Your task to perform on an android device: Is it going to rain tomorrow? Image 0: 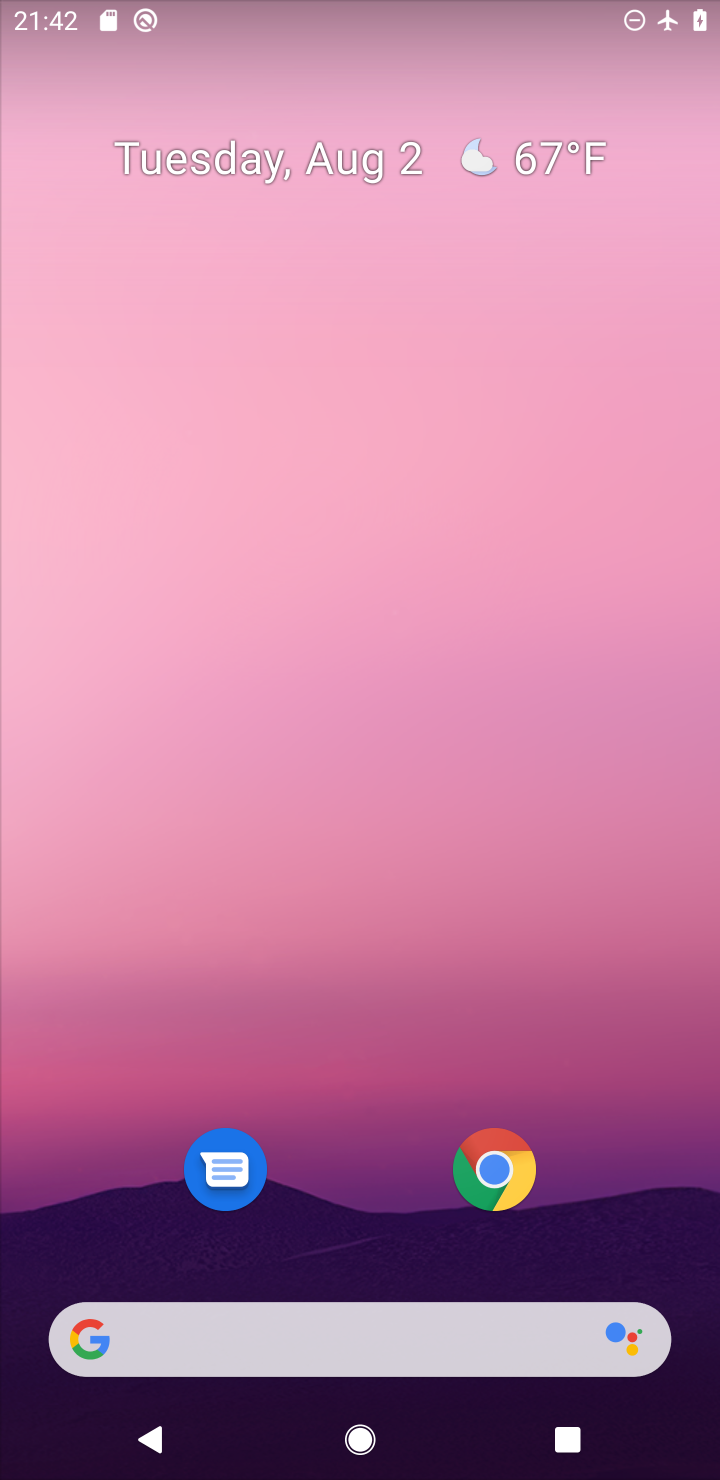
Step 0: drag from (372, 1237) to (340, 238)
Your task to perform on an android device: Is it going to rain tomorrow? Image 1: 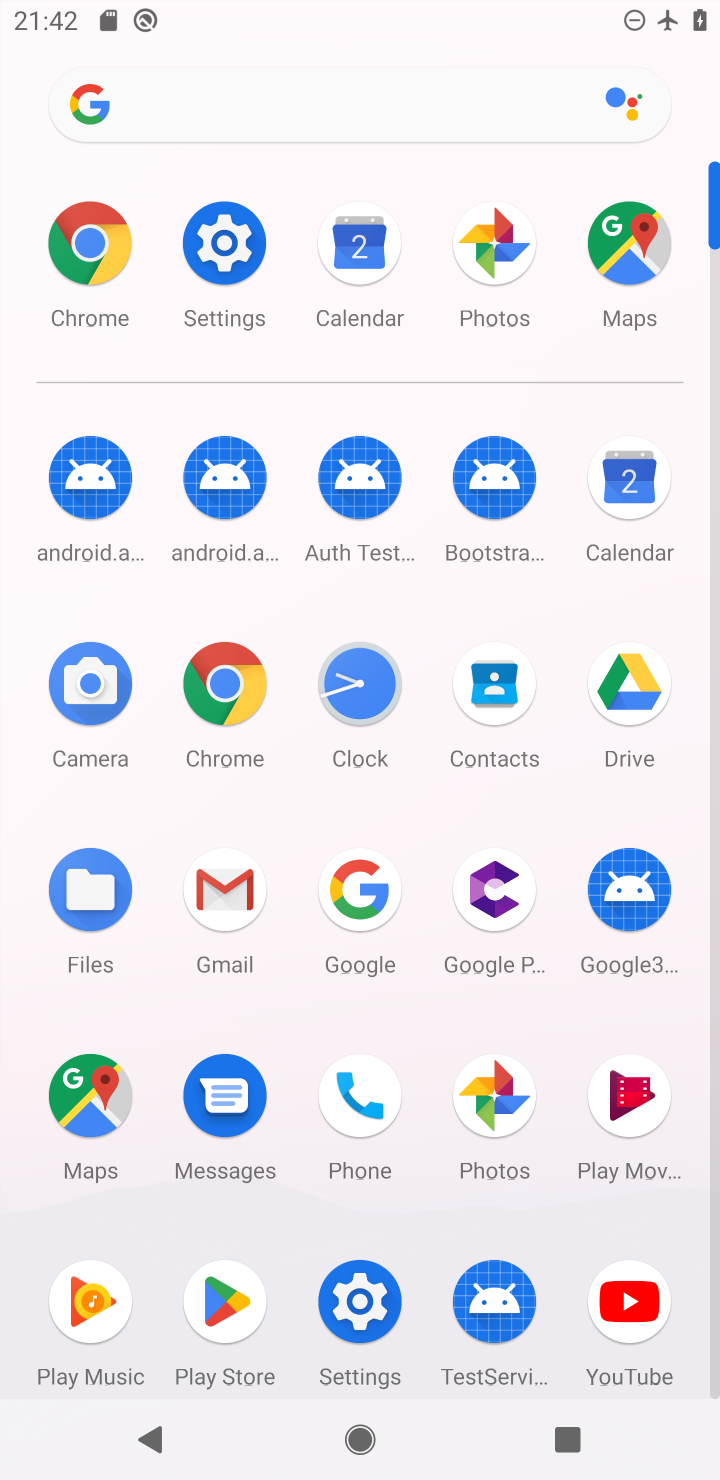
Step 1: click (624, 477)
Your task to perform on an android device: Is it going to rain tomorrow? Image 2: 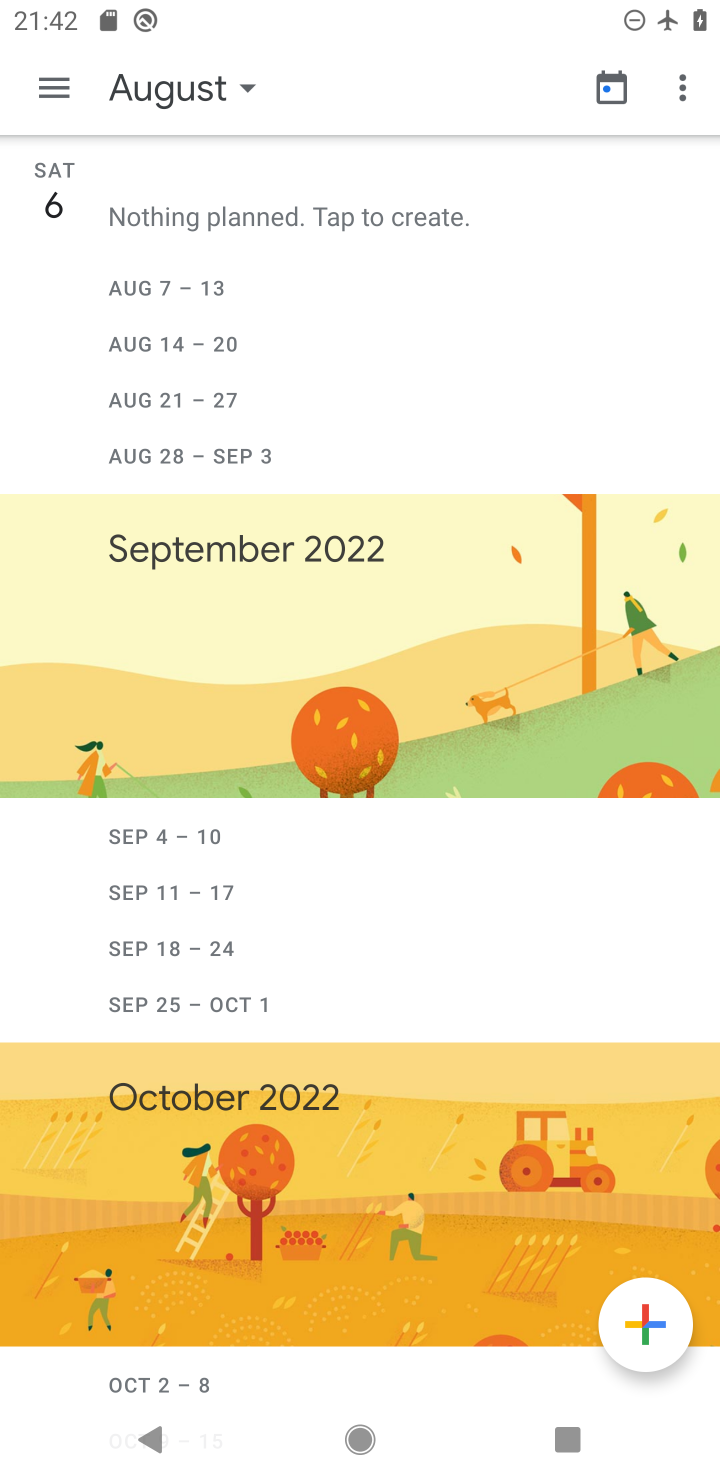
Step 2: click (242, 88)
Your task to perform on an android device: Is it going to rain tomorrow? Image 3: 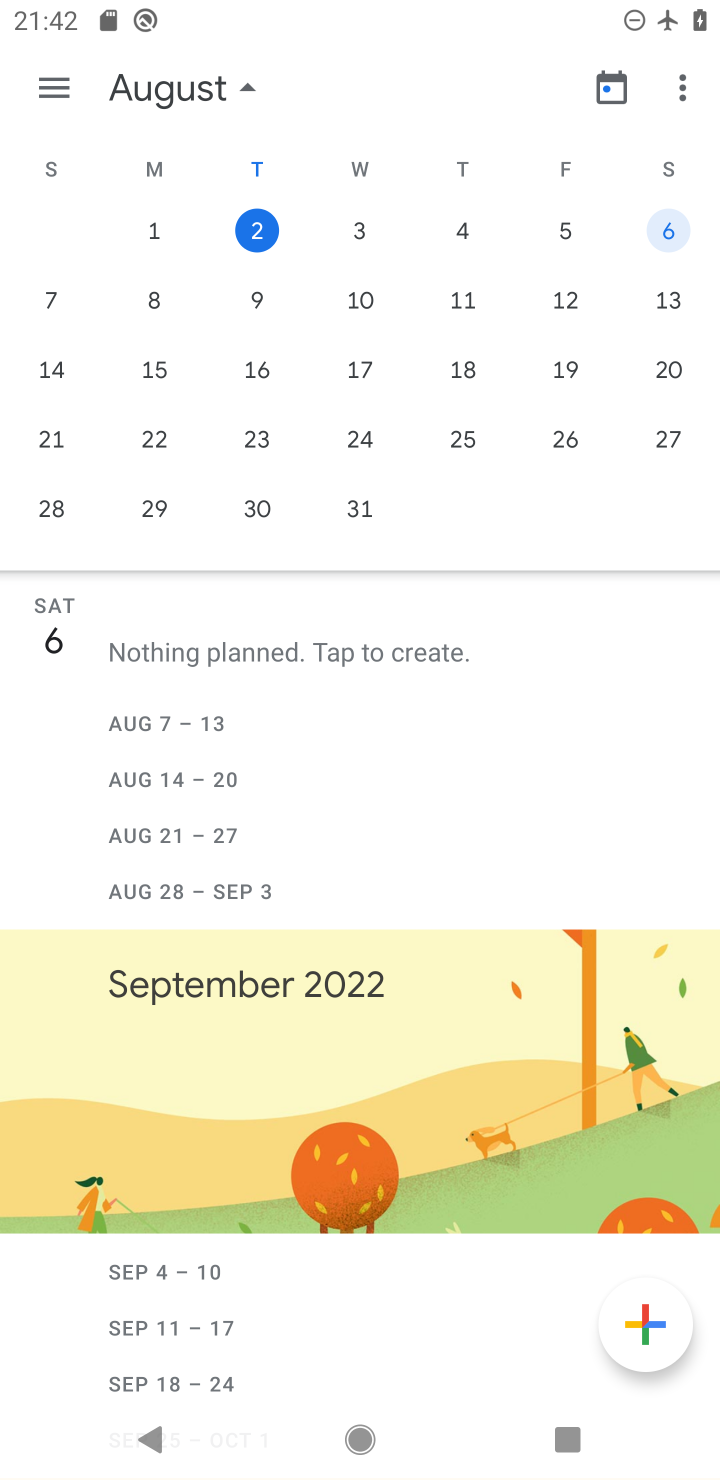
Step 3: click (359, 223)
Your task to perform on an android device: Is it going to rain tomorrow? Image 4: 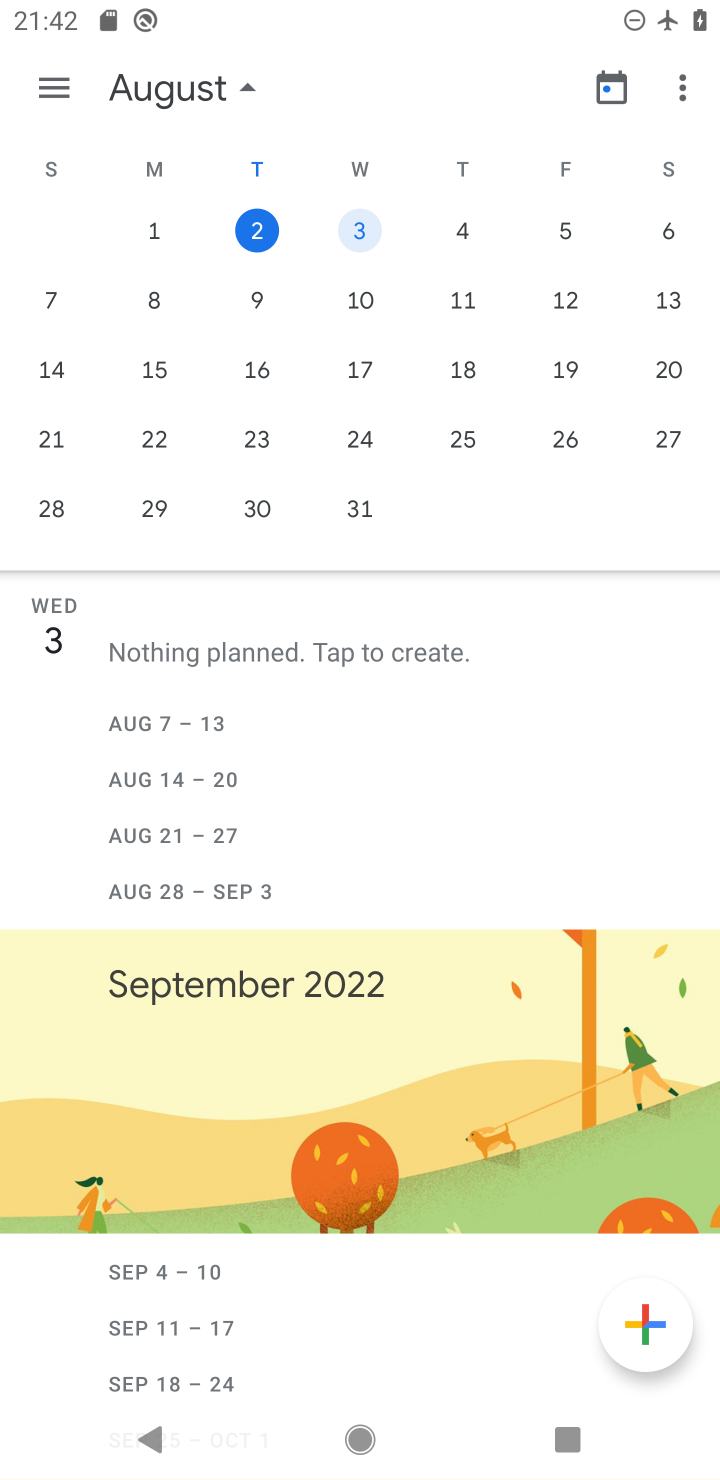
Step 4: click (359, 223)
Your task to perform on an android device: Is it going to rain tomorrow? Image 5: 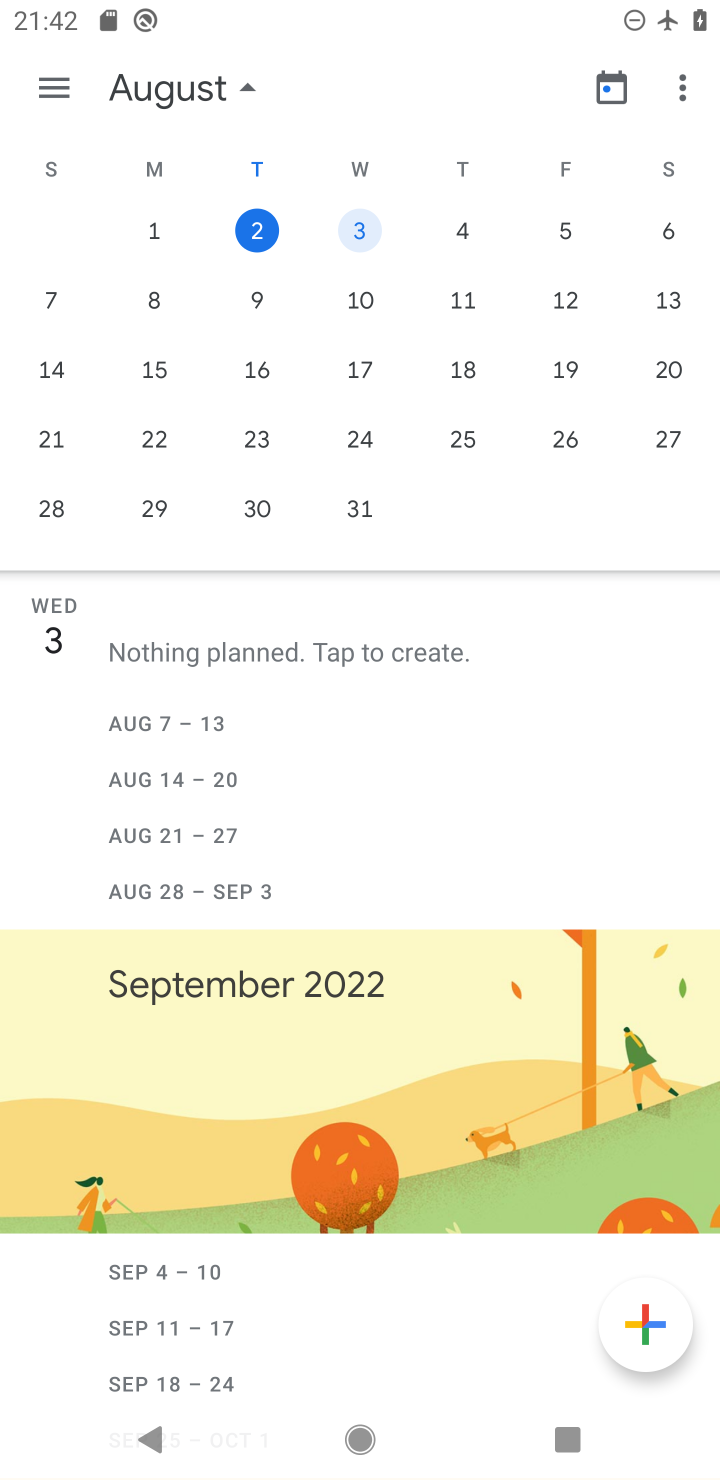
Step 5: press home button
Your task to perform on an android device: Is it going to rain tomorrow? Image 6: 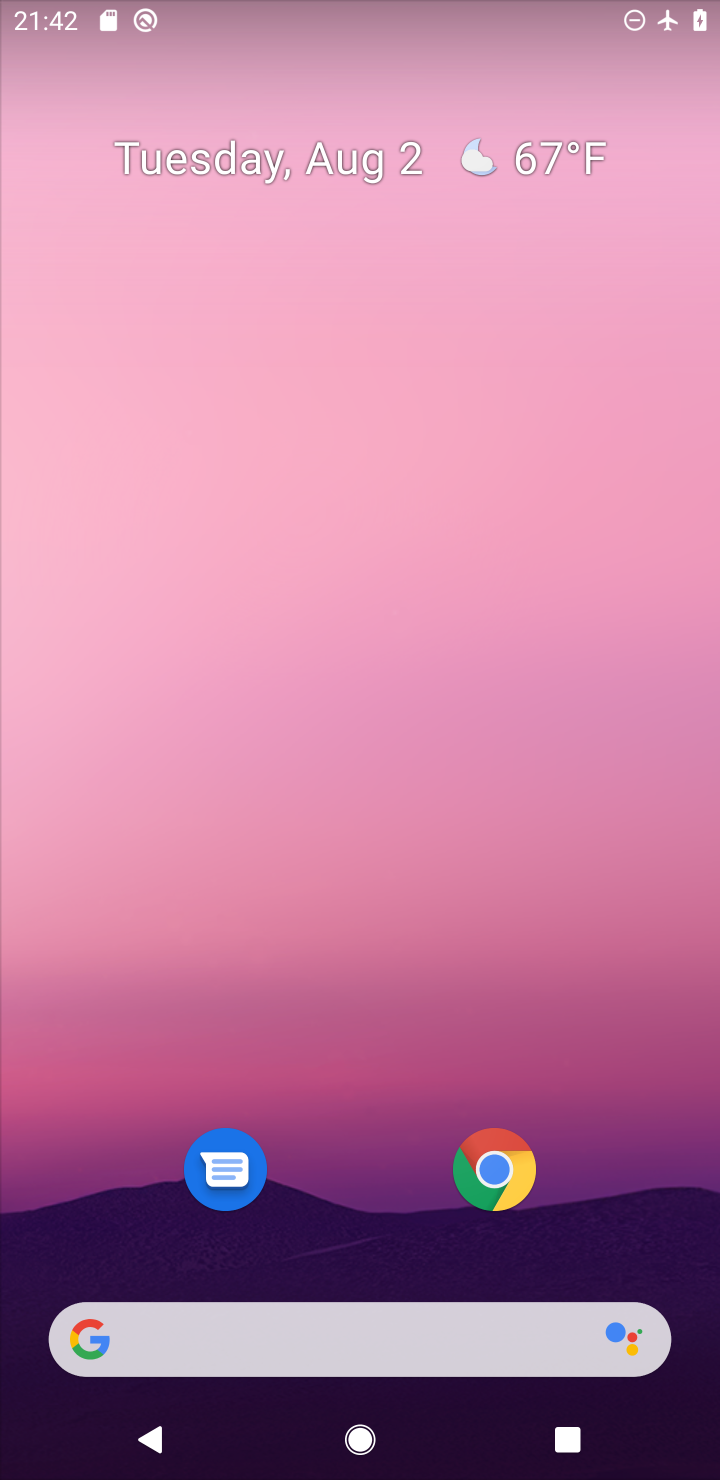
Step 6: drag from (370, 1223) to (319, 196)
Your task to perform on an android device: Is it going to rain tomorrow? Image 7: 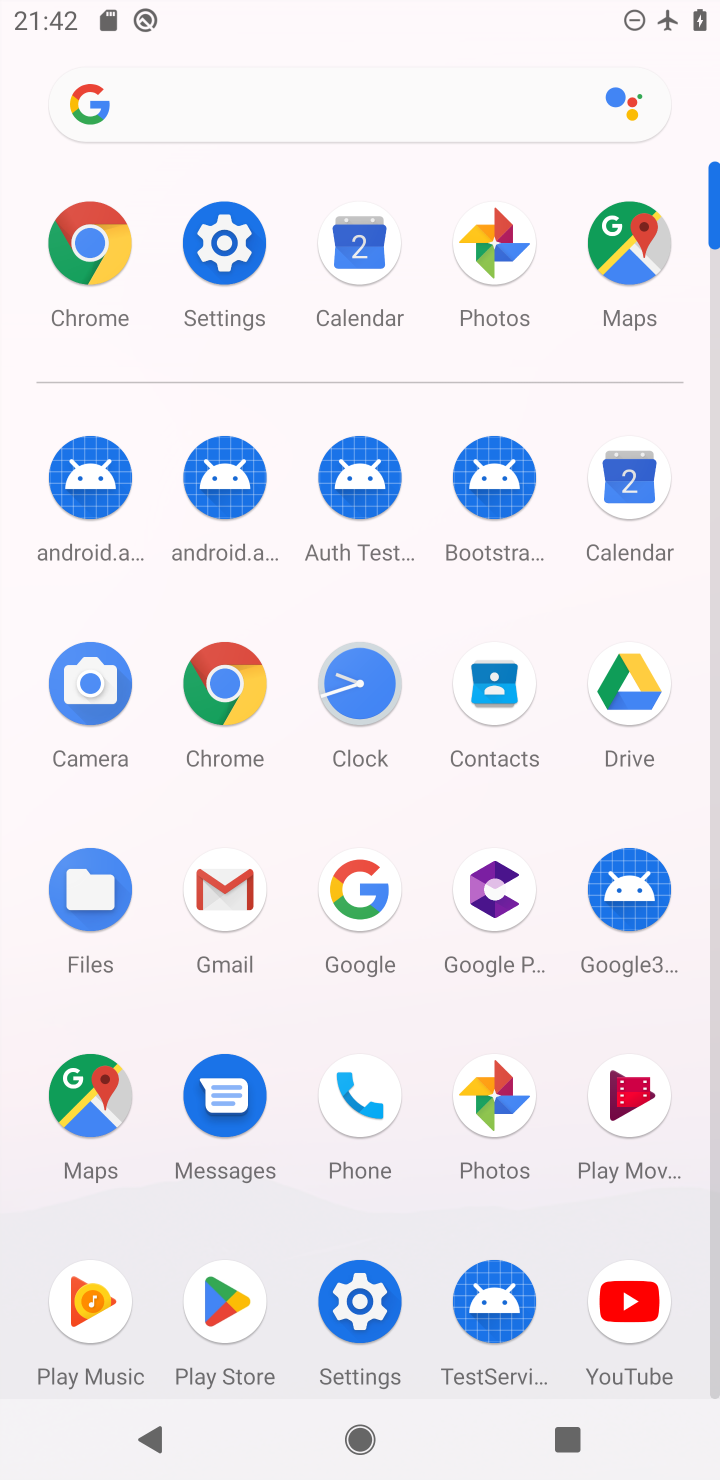
Step 7: click (358, 883)
Your task to perform on an android device: Is it going to rain tomorrow? Image 8: 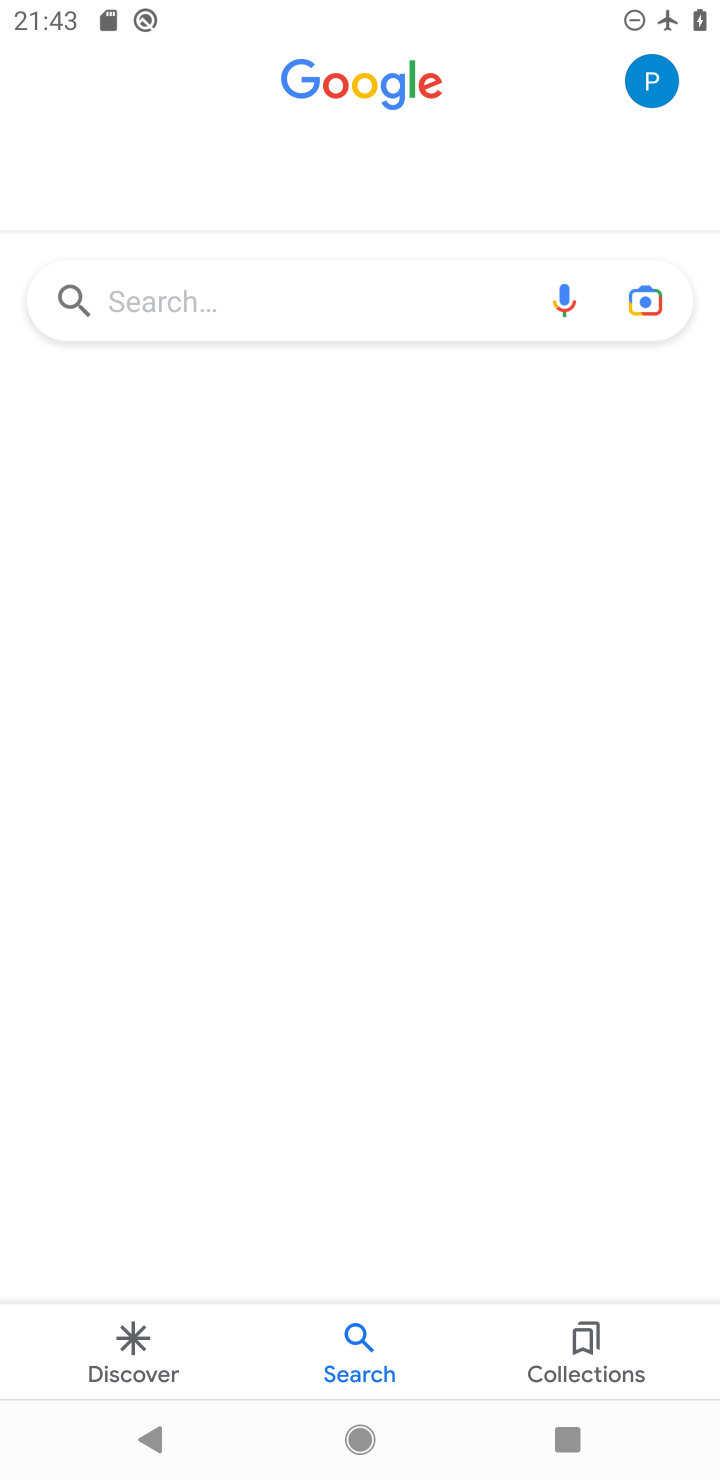
Step 8: click (293, 306)
Your task to perform on an android device: Is it going to rain tomorrow? Image 9: 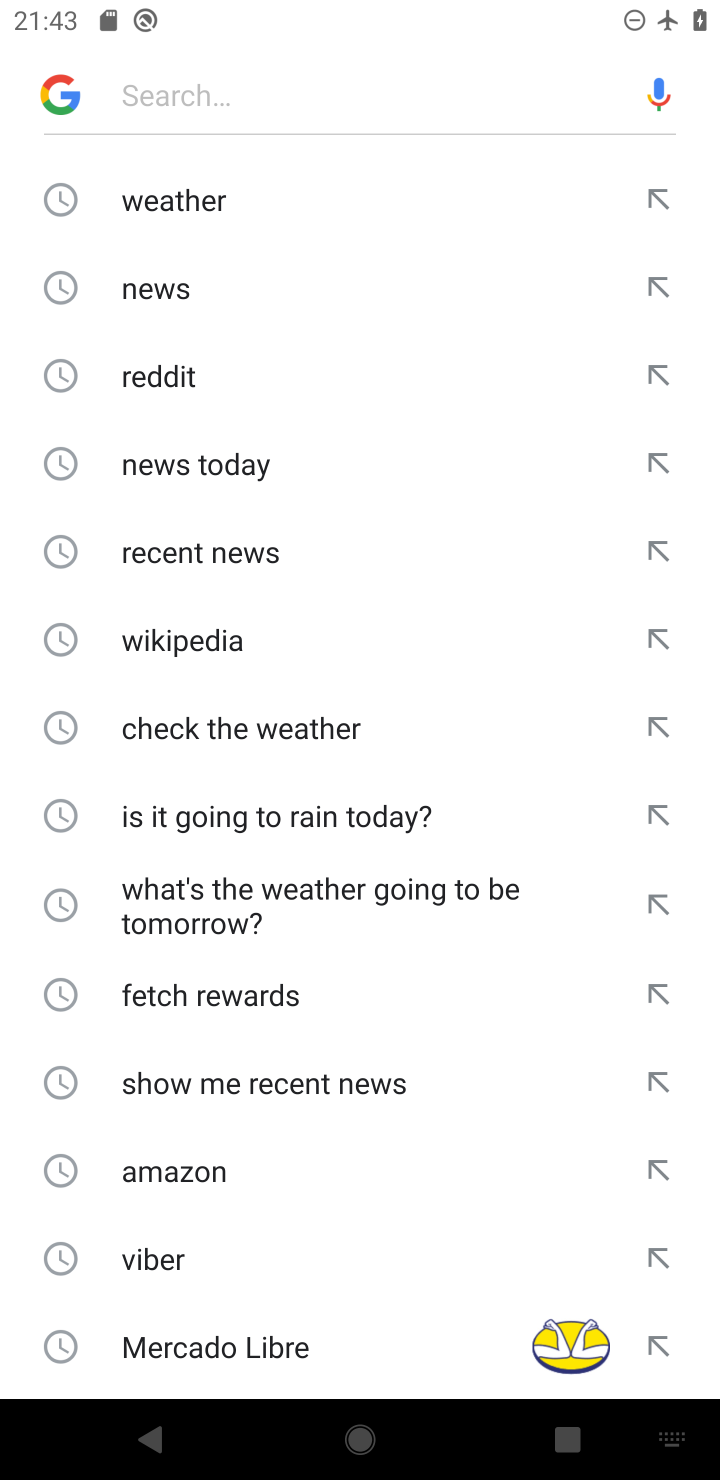
Step 9: click (174, 185)
Your task to perform on an android device: Is it going to rain tomorrow? Image 10: 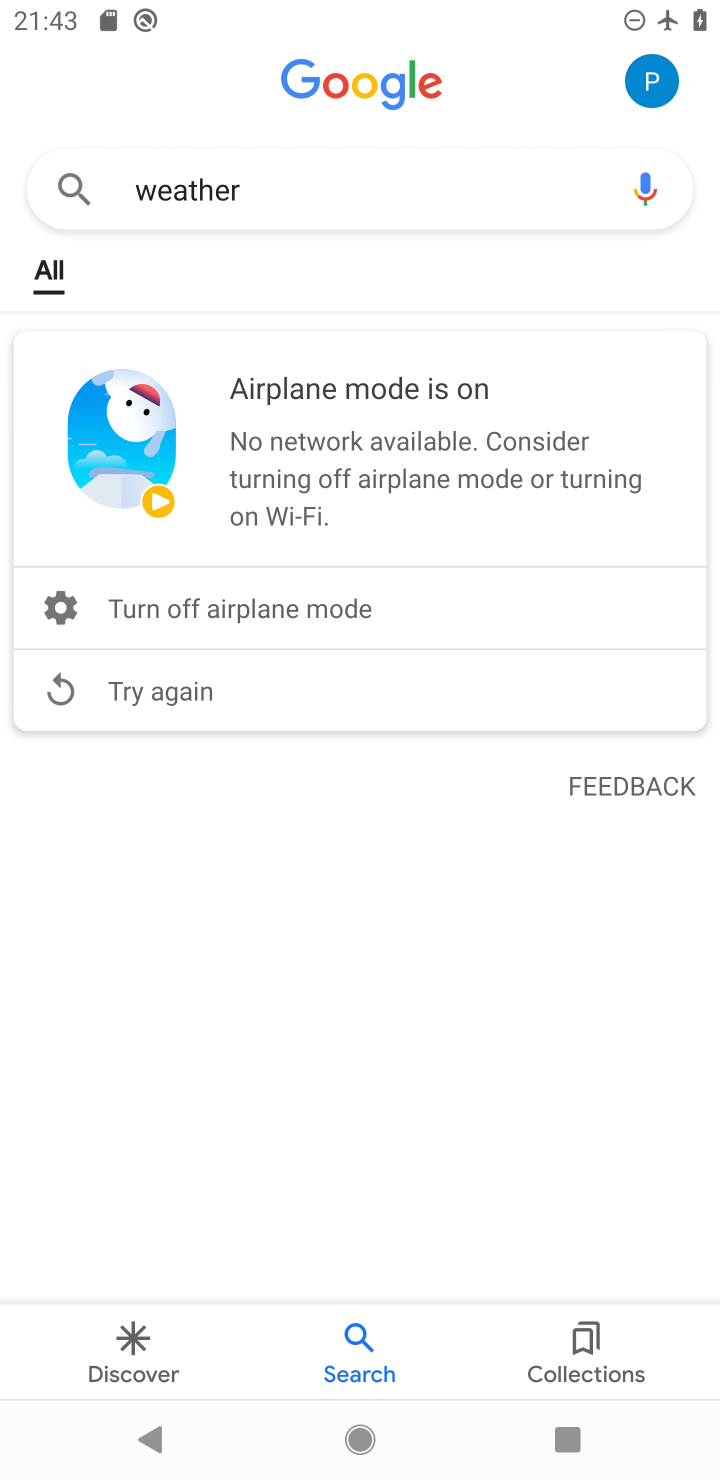
Step 10: task complete